Your task to perform on an android device: Is it going to rain today? Image 0: 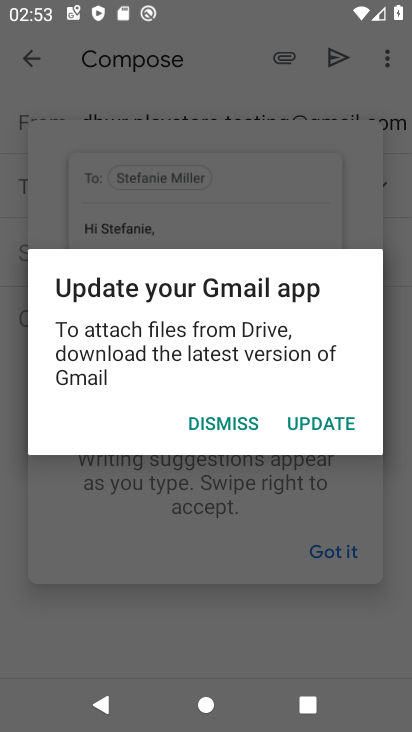
Step 0: press home button
Your task to perform on an android device: Is it going to rain today? Image 1: 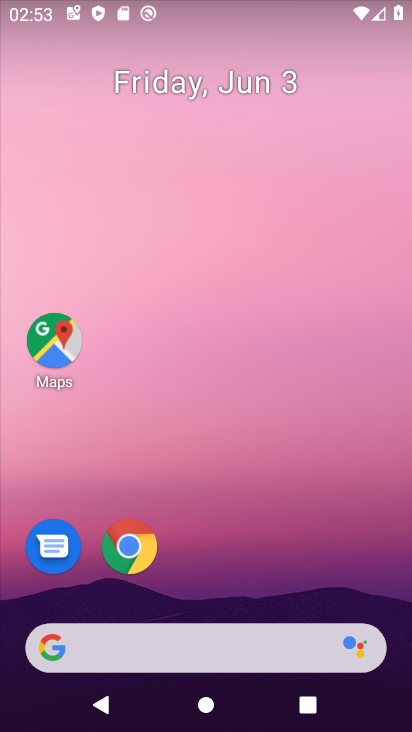
Step 1: click (185, 647)
Your task to perform on an android device: Is it going to rain today? Image 2: 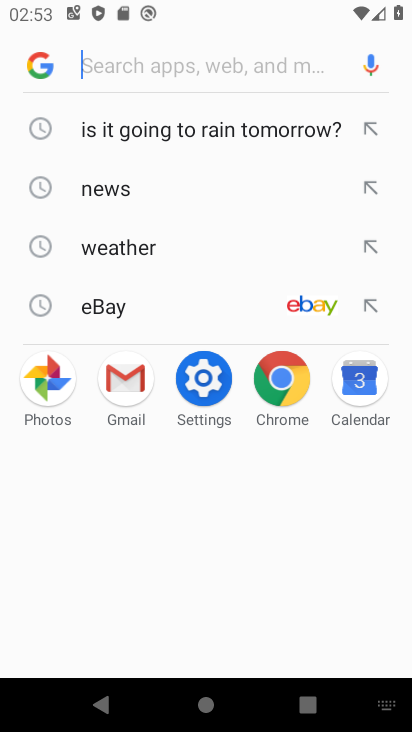
Step 2: type "is it going to rain today"
Your task to perform on an android device: Is it going to rain today? Image 3: 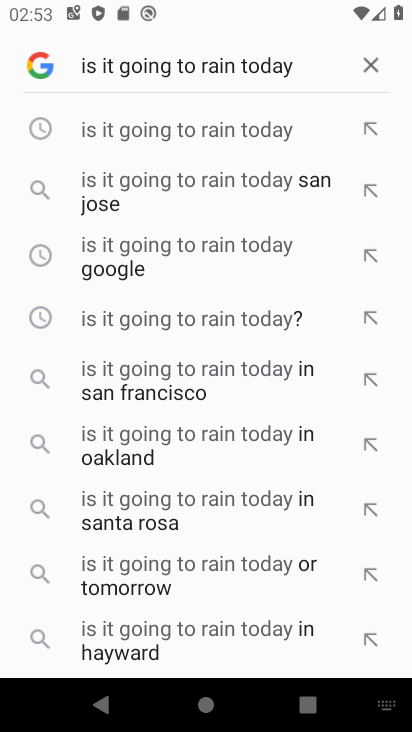
Step 3: click (207, 136)
Your task to perform on an android device: Is it going to rain today? Image 4: 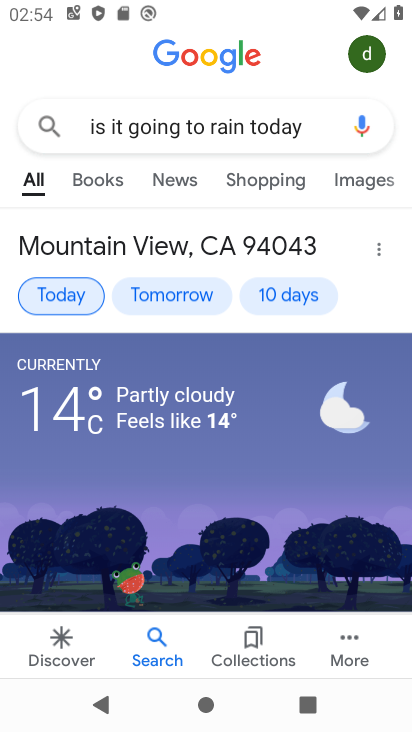
Step 4: task complete